Your task to perform on an android device: turn on data saver in the chrome app Image 0: 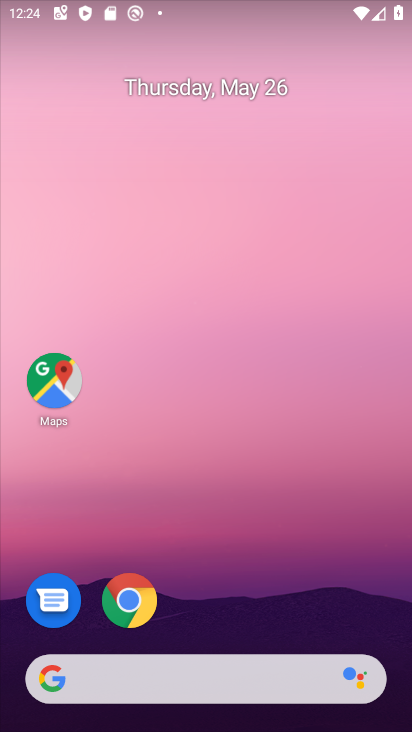
Step 0: click (124, 598)
Your task to perform on an android device: turn on data saver in the chrome app Image 1: 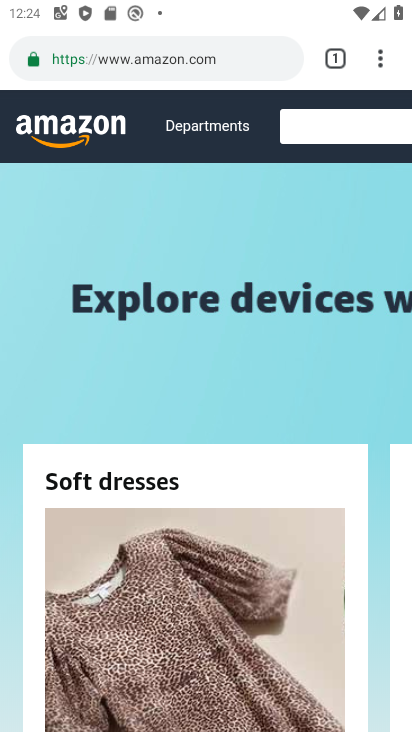
Step 1: drag from (384, 54) to (189, 633)
Your task to perform on an android device: turn on data saver in the chrome app Image 2: 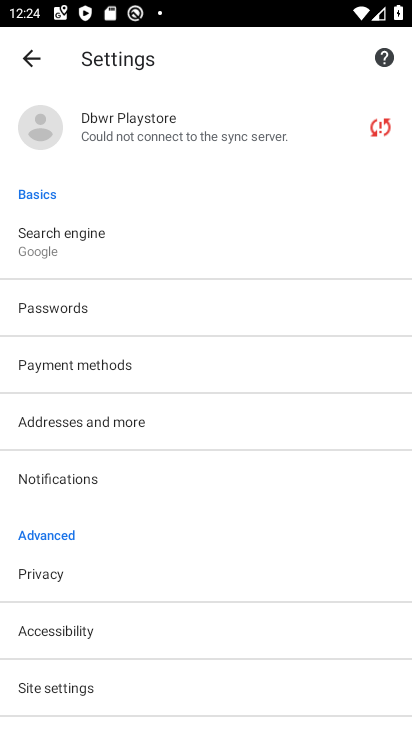
Step 2: drag from (206, 588) to (268, 171)
Your task to perform on an android device: turn on data saver in the chrome app Image 3: 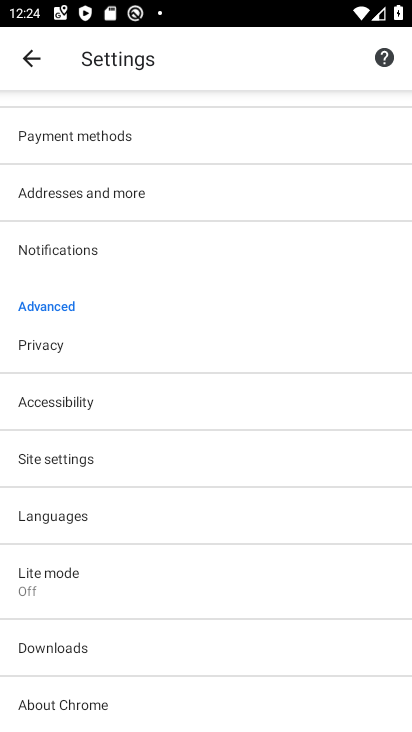
Step 3: drag from (121, 577) to (182, 346)
Your task to perform on an android device: turn on data saver in the chrome app Image 4: 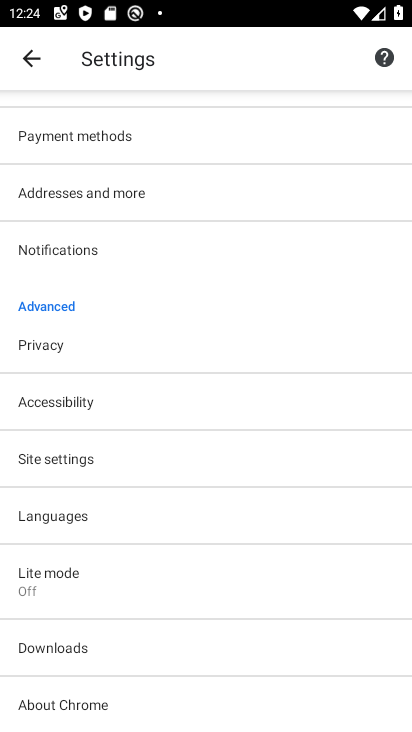
Step 4: click (72, 456)
Your task to perform on an android device: turn on data saver in the chrome app Image 5: 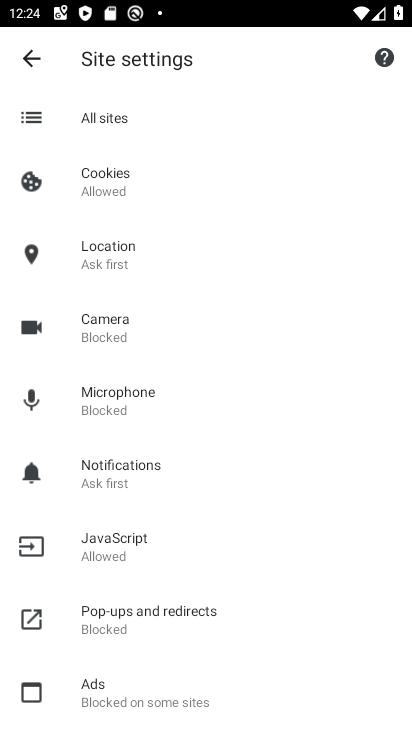
Step 5: drag from (214, 545) to (259, 353)
Your task to perform on an android device: turn on data saver in the chrome app Image 6: 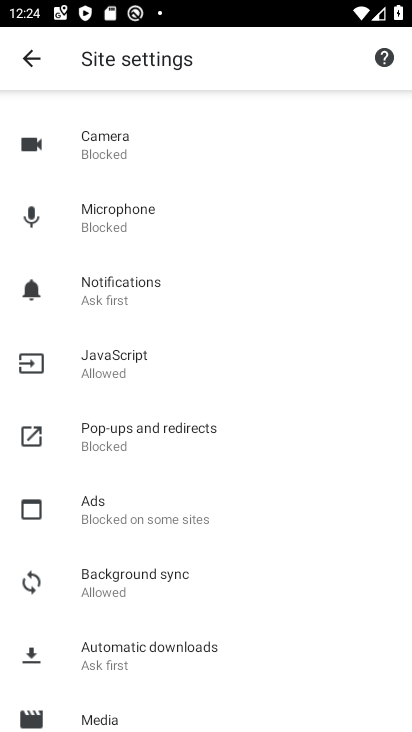
Step 6: drag from (171, 235) to (183, 543)
Your task to perform on an android device: turn on data saver in the chrome app Image 7: 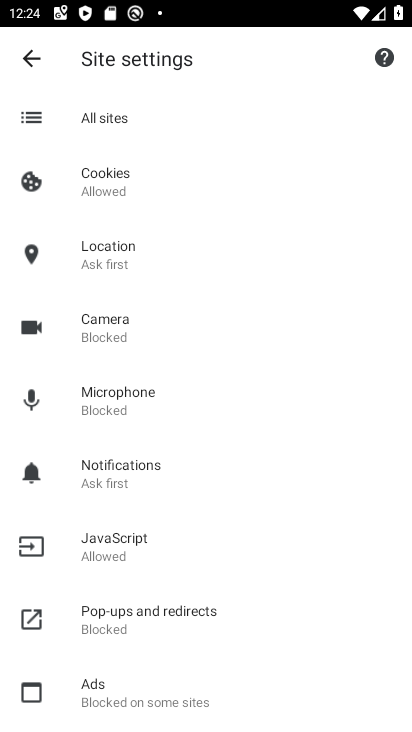
Step 7: drag from (243, 296) to (223, 602)
Your task to perform on an android device: turn on data saver in the chrome app Image 8: 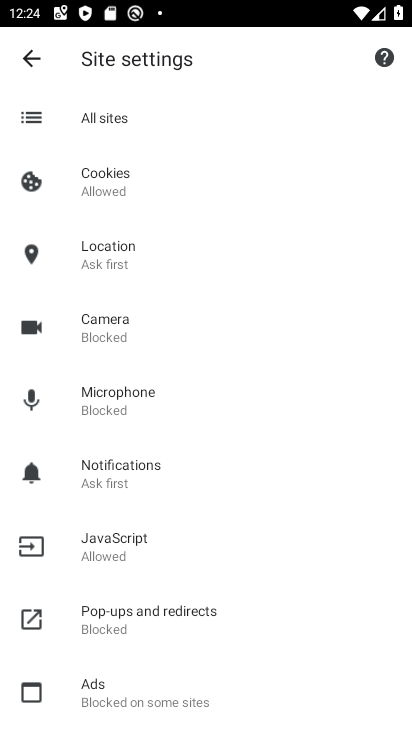
Step 8: drag from (192, 654) to (247, 153)
Your task to perform on an android device: turn on data saver in the chrome app Image 9: 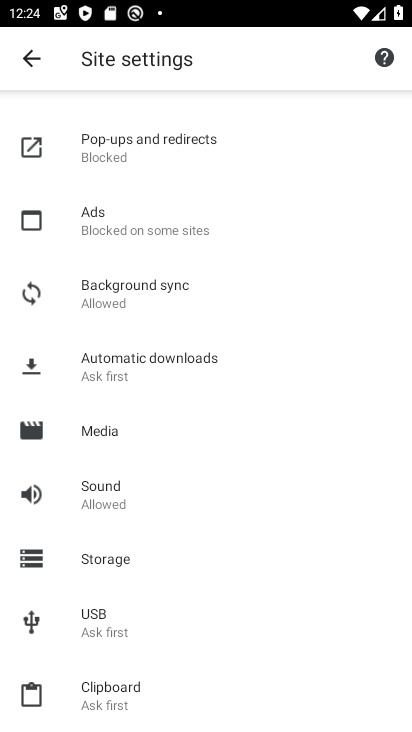
Step 9: click (30, 52)
Your task to perform on an android device: turn on data saver in the chrome app Image 10: 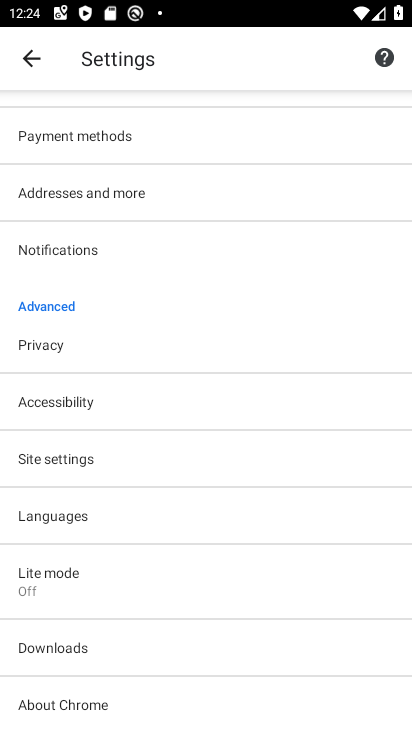
Step 10: click (110, 592)
Your task to perform on an android device: turn on data saver in the chrome app Image 11: 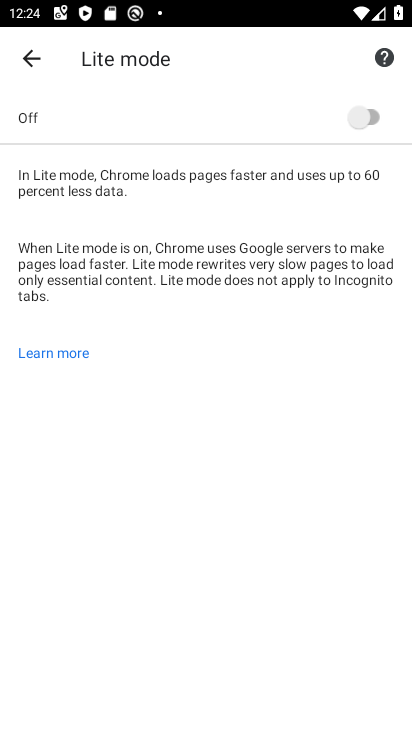
Step 11: click (369, 122)
Your task to perform on an android device: turn on data saver in the chrome app Image 12: 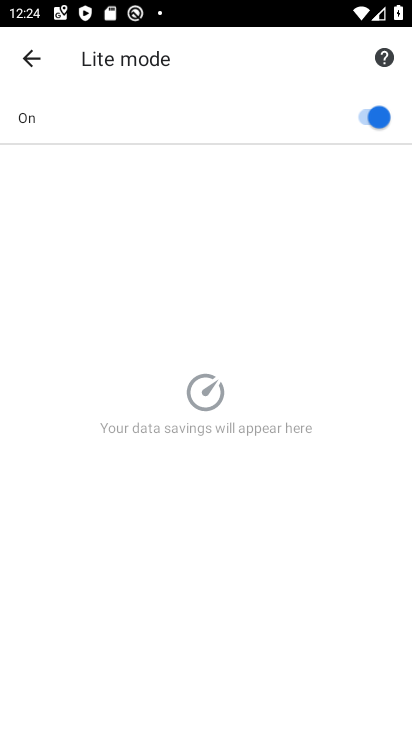
Step 12: task complete